Your task to perform on an android device: Is it going to rain this weekend? Image 0: 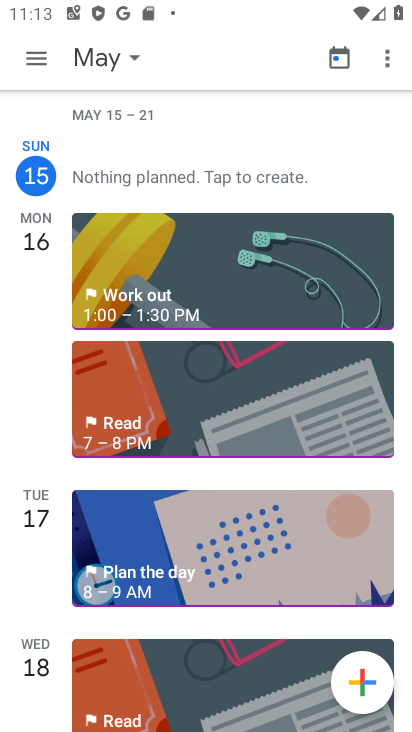
Step 0: press home button
Your task to perform on an android device: Is it going to rain this weekend? Image 1: 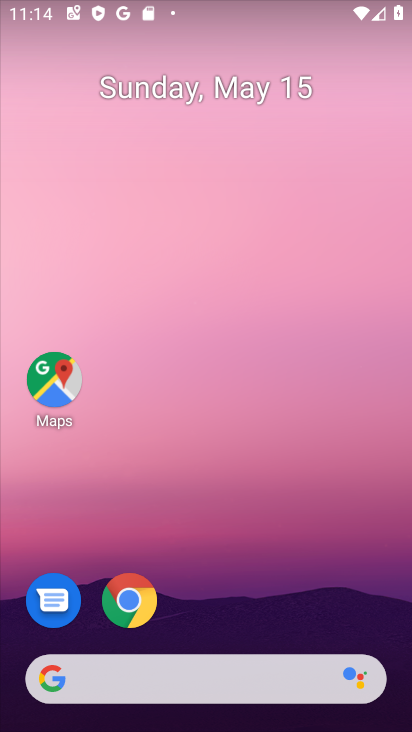
Step 1: drag from (180, 672) to (134, 11)
Your task to perform on an android device: Is it going to rain this weekend? Image 2: 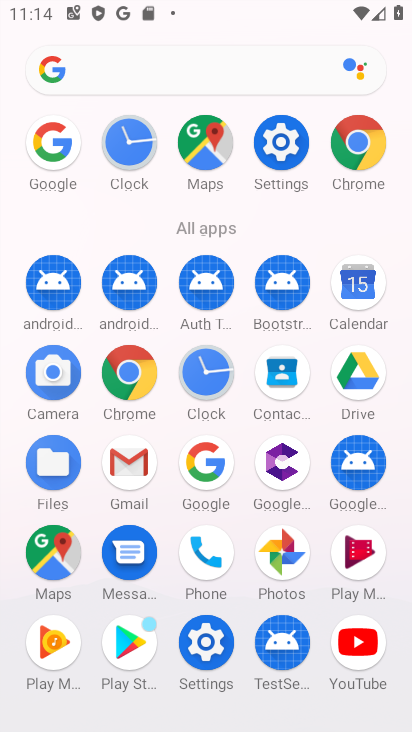
Step 2: click (204, 478)
Your task to perform on an android device: Is it going to rain this weekend? Image 3: 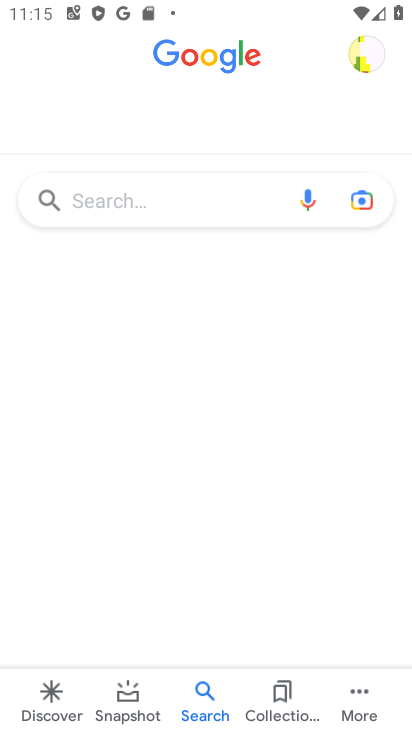
Step 3: click (48, 689)
Your task to perform on an android device: Is it going to rain this weekend? Image 4: 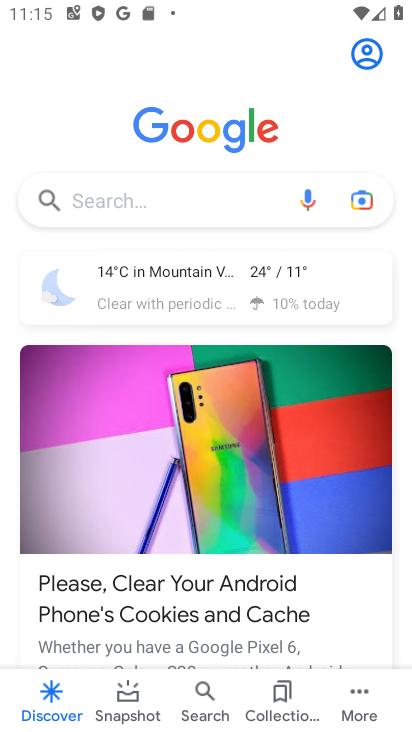
Step 4: click (270, 273)
Your task to perform on an android device: Is it going to rain this weekend? Image 5: 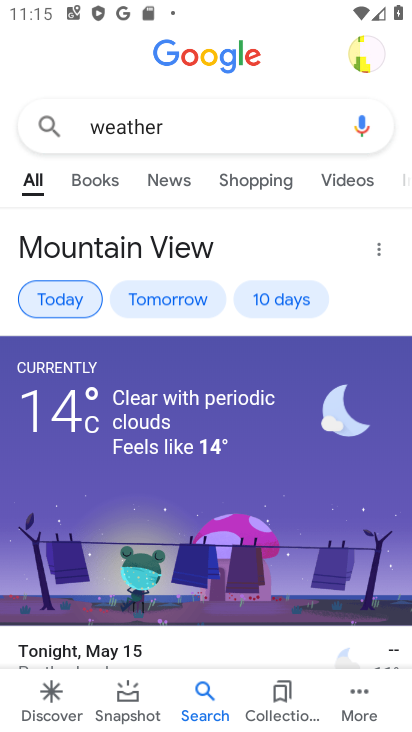
Step 5: click (252, 300)
Your task to perform on an android device: Is it going to rain this weekend? Image 6: 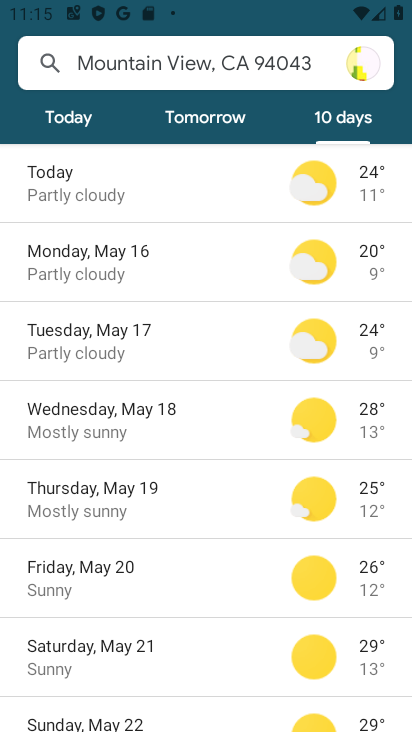
Step 6: task complete